Your task to perform on an android device: turn off javascript in the chrome app Image 0: 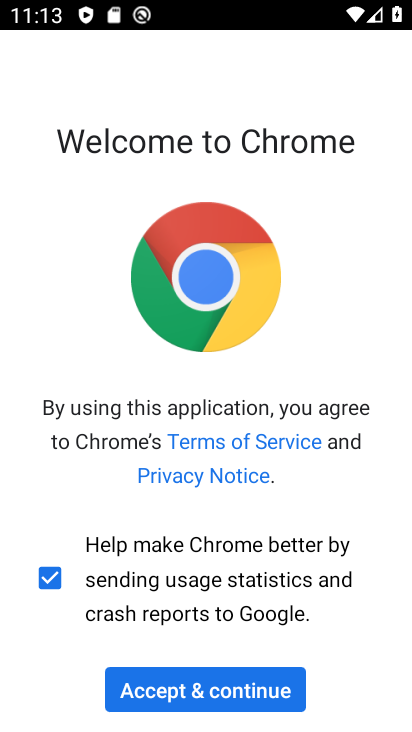
Step 0: press home button
Your task to perform on an android device: turn off javascript in the chrome app Image 1: 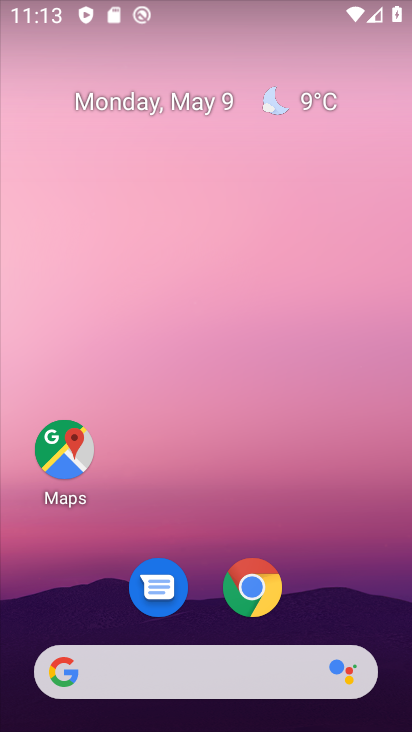
Step 1: drag from (221, 634) to (288, 303)
Your task to perform on an android device: turn off javascript in the chrome app Image 2: 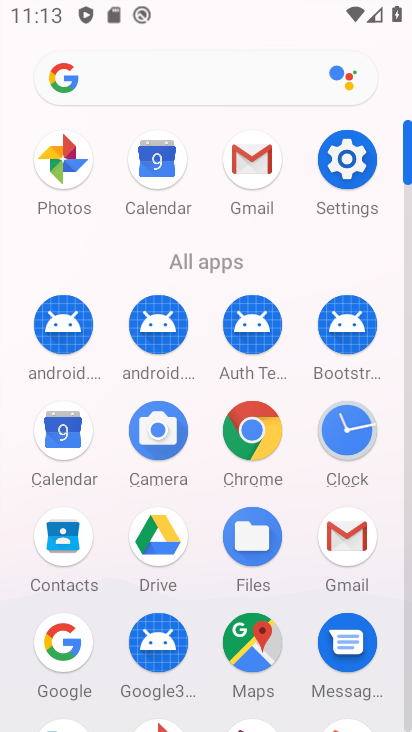
Step 2: click (246, 435)
Your task to perform on an android device: turn off javascript in the chrome app Image 3: 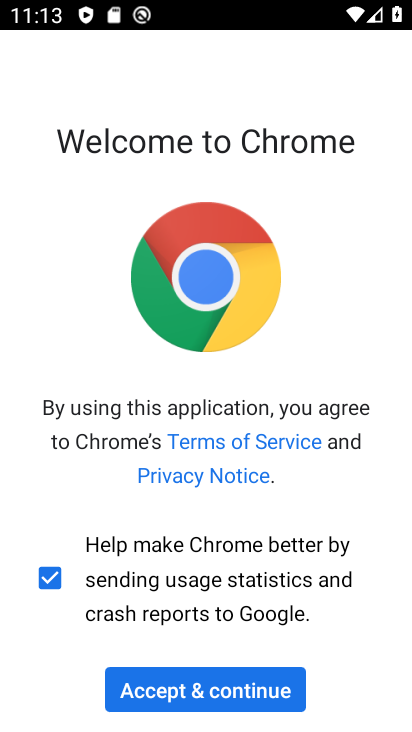
Step 3: click (194, 683)
Your task to perform on an android device: turn off javascript in the chrome app Image 4: 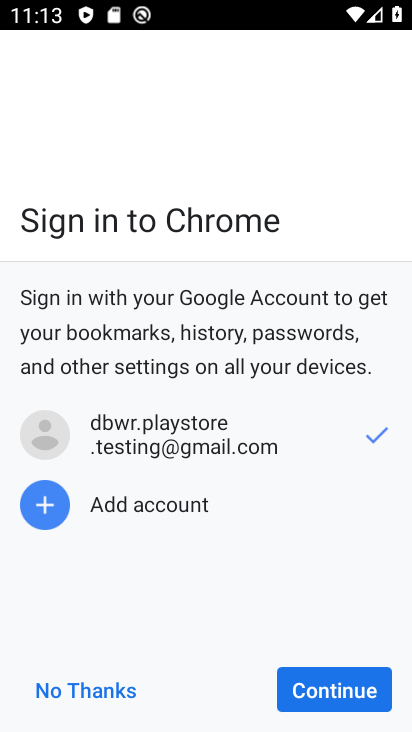
Step 4: click (328, 701)
Your task to perform on an android device: turn off javascript in the chrome app Image 5: 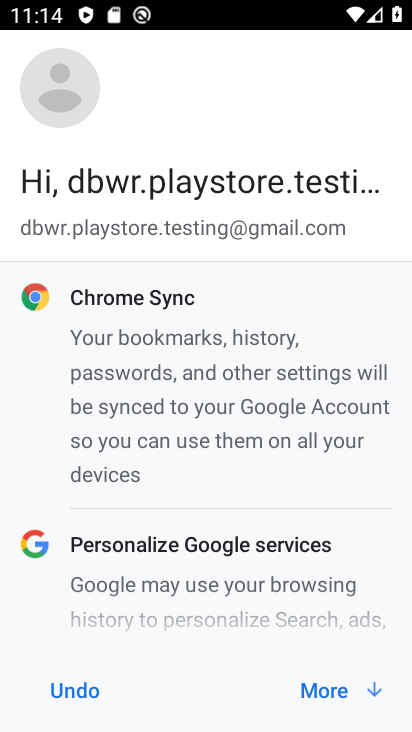
Step 5: click (309, 684)
Your task to perform on an android device: turn off javascript in the chrome app Image 6: 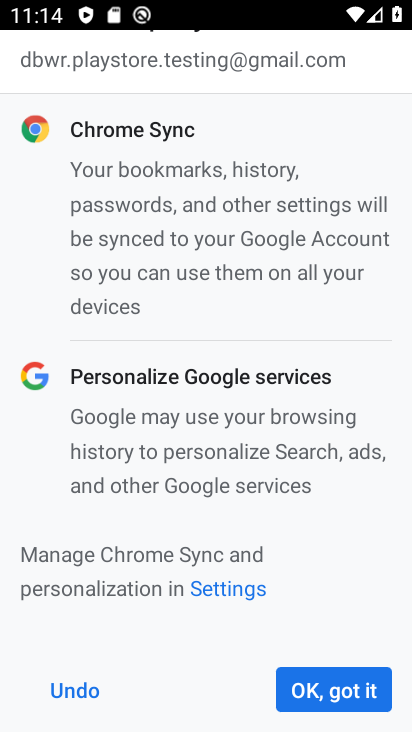
Step 6: click (308, 683)
Your task to perform on an android device: turn off javascript in the chrome app Image 7: 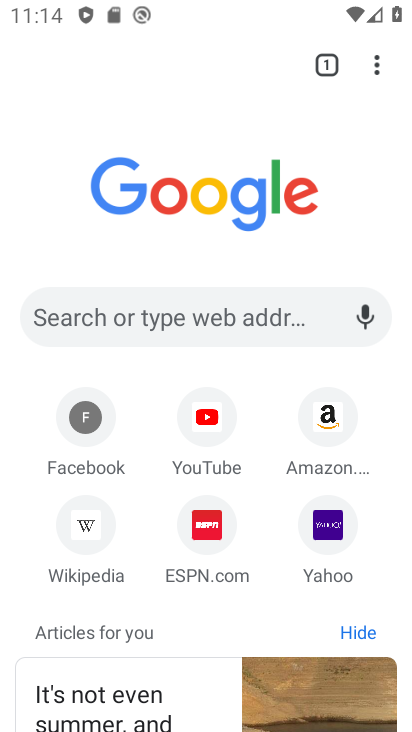
Step 7: click (377, 65)
Your task to perform on an android device: turn off javascript in the chrome app Image 8: 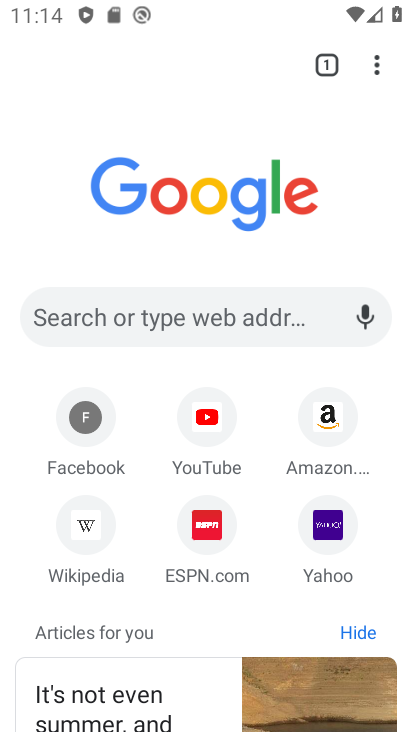
Step 8: click (372, 62)
Your task to perform on an android device: turn off javascript in the chrome app Image 9: 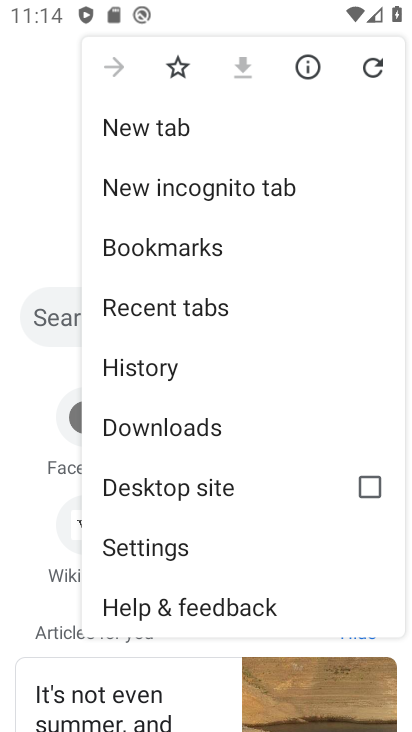
Step 9: click (150, 539)
Your task to perform on an android device: turn off javascript in the chrome app Image 10: 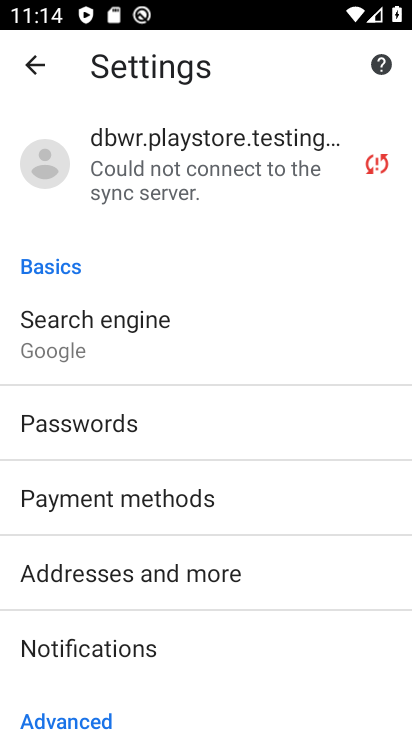
Step 10: drag from (163, 679) to (212, 349)
Your task to perform on an android device: turn off javascript in the chrome app Image 11: 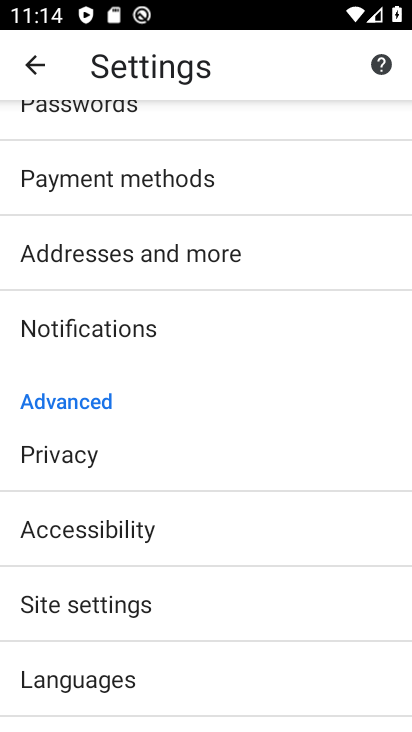
Step 11: click (133, 596)
Your task to perform on an android device: turn off javascript in the chrome app Image 12: 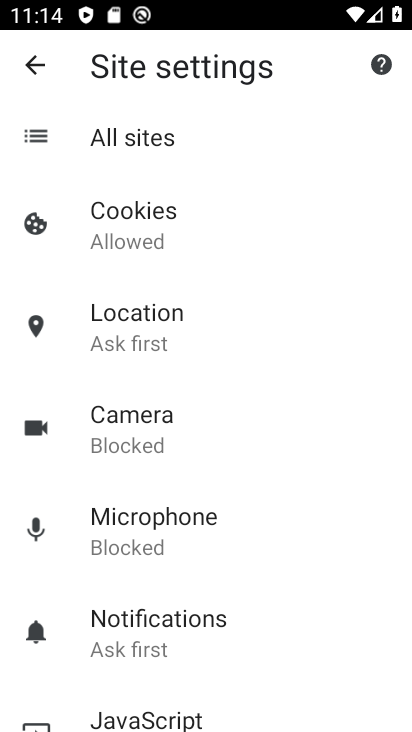
Step 12: click (166, 719)
Your task to perform on an android device: turn off javascript in the chrome app Image 13: 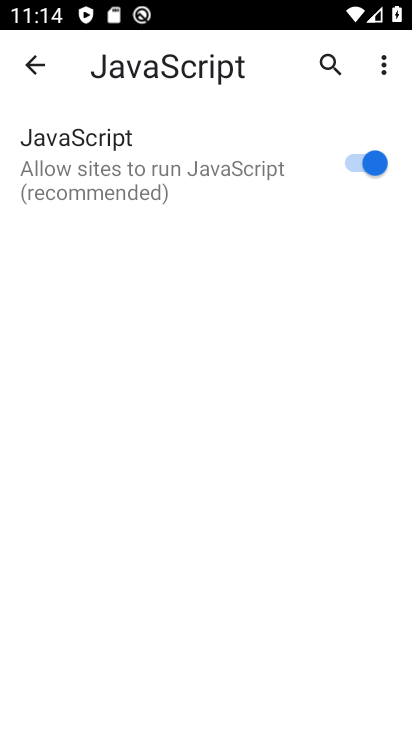
Step 13: click (362, 161)
Your task to perform on an android device: turn off javascript in the chrome app Image 14: 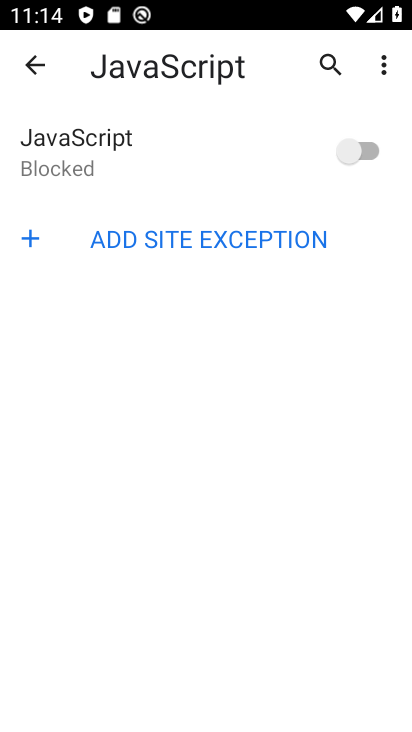
Step 14: task complete